Your task to perform on an android device: uninstall "Google Sheets" Image 0: 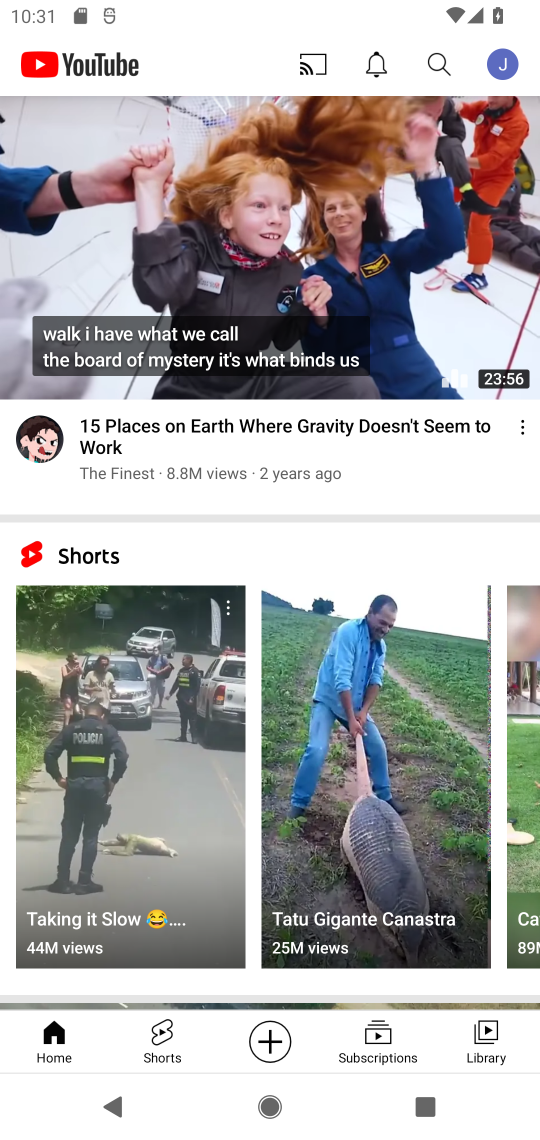
Step 0: press home button
Your task to perform on an android device: uninstall "Google Sheets" Image 1: 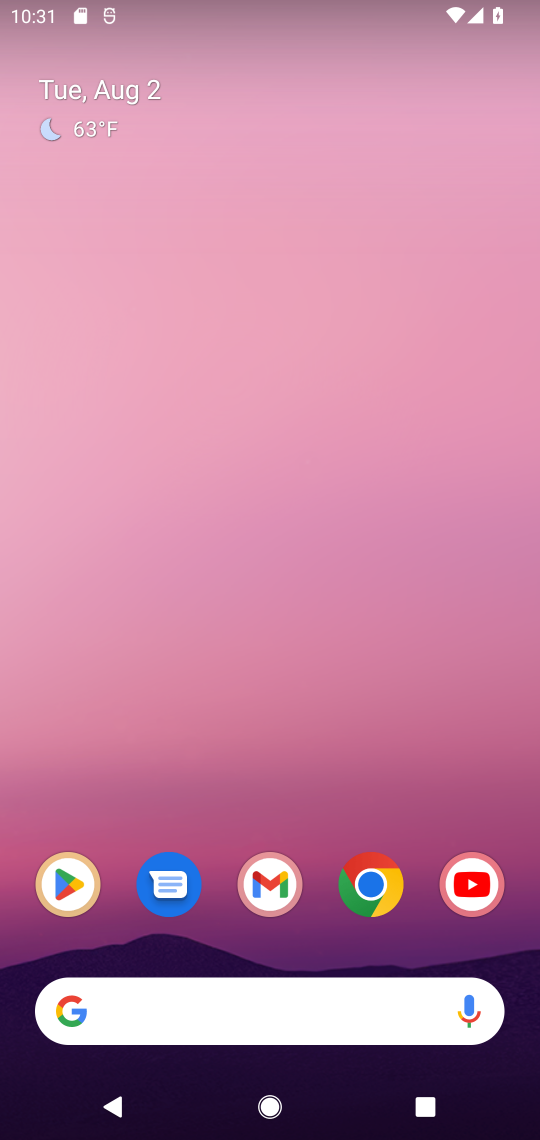
Step 1: click (56, 885)
Your task to perform on an android device: uninstall "Google Sheets" Image 2: 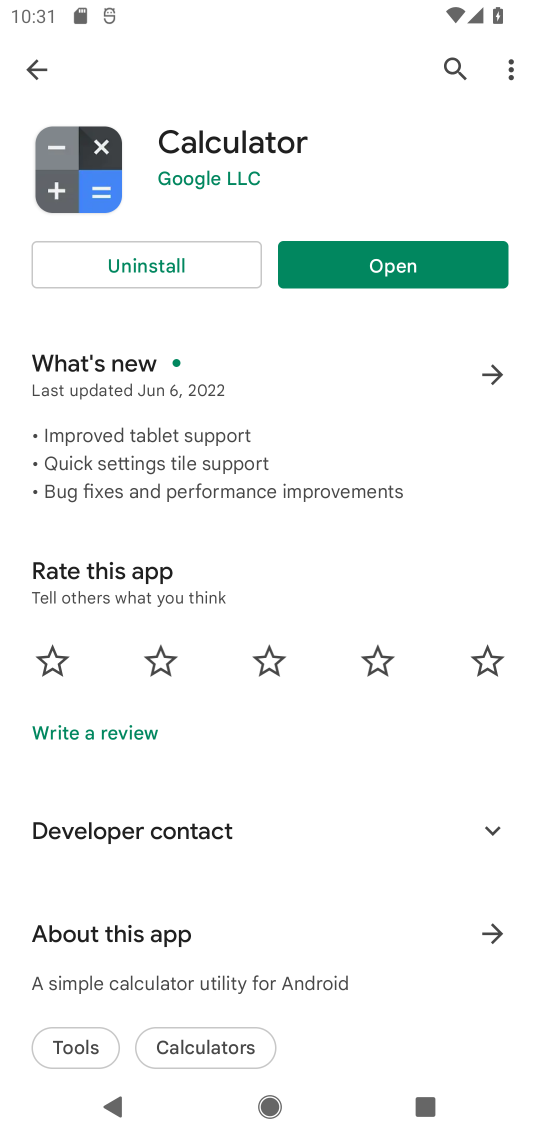
Step 2: click (29, 58)
Your task to perform on an android device: uninstall "Google Sheets" Image 3: 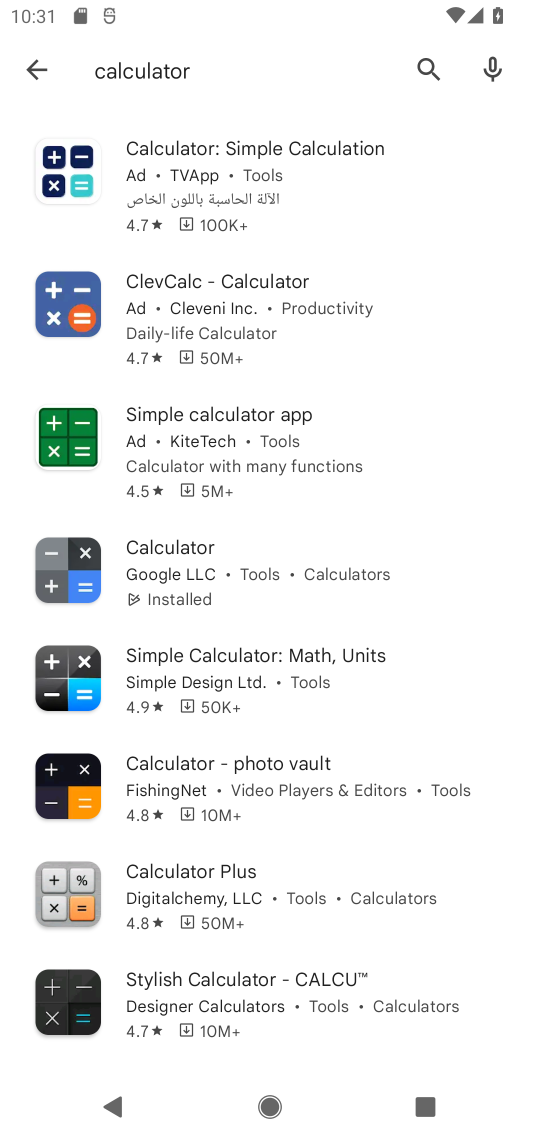
Step 3: click (205, 80)
Your task to perform on an android device: uninstall "Google Sheets" Image 4: 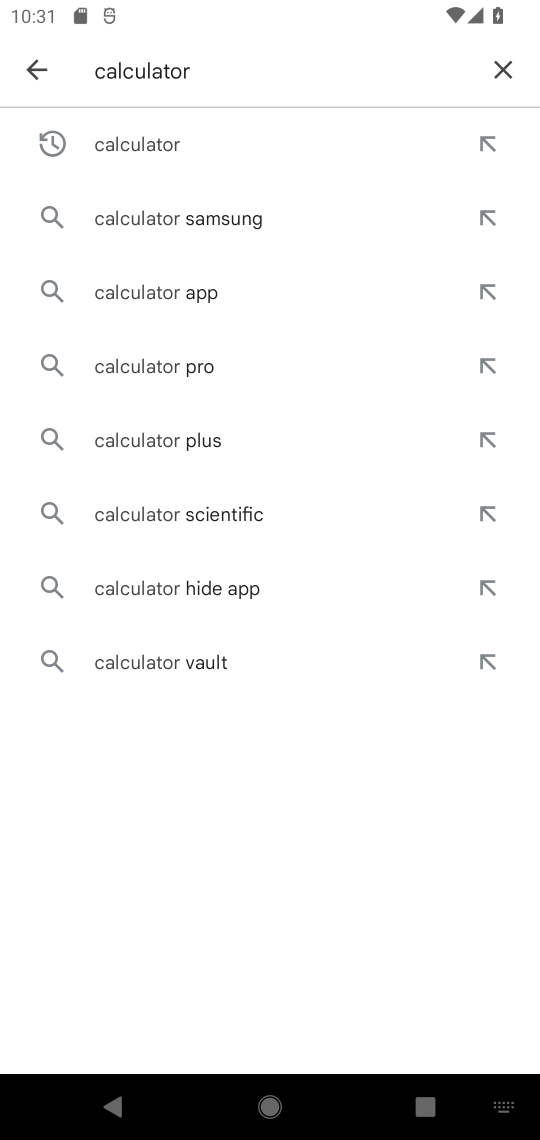
Step 4: click (495, 66)
Your task to perform on an android device: uninstall "Google Sheets" Image 5: 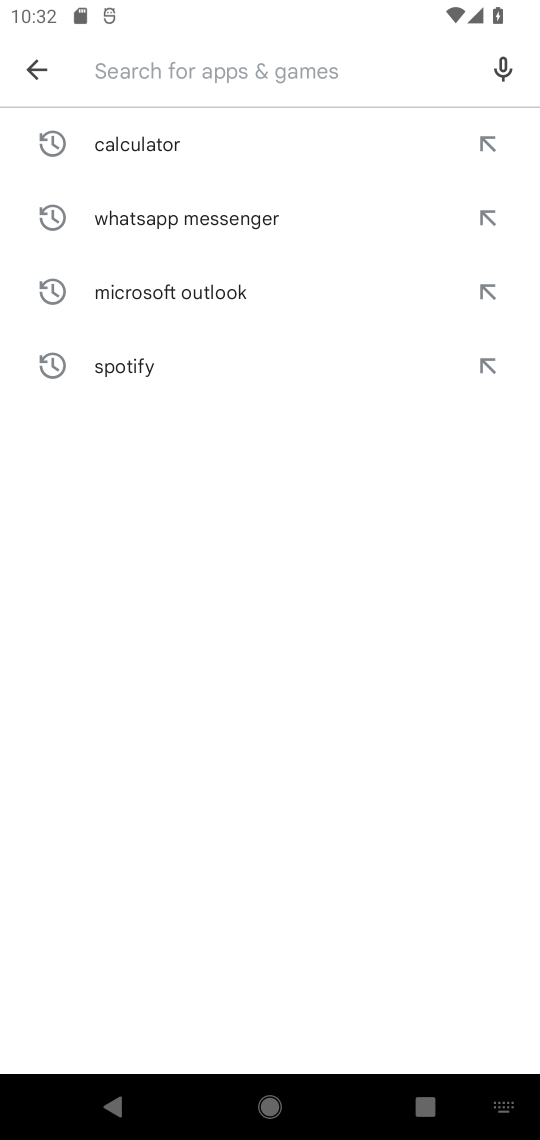
Step 5: type "google sheets"
Your task to perform on an android device: uninstall "Google Sheets" Image 6: 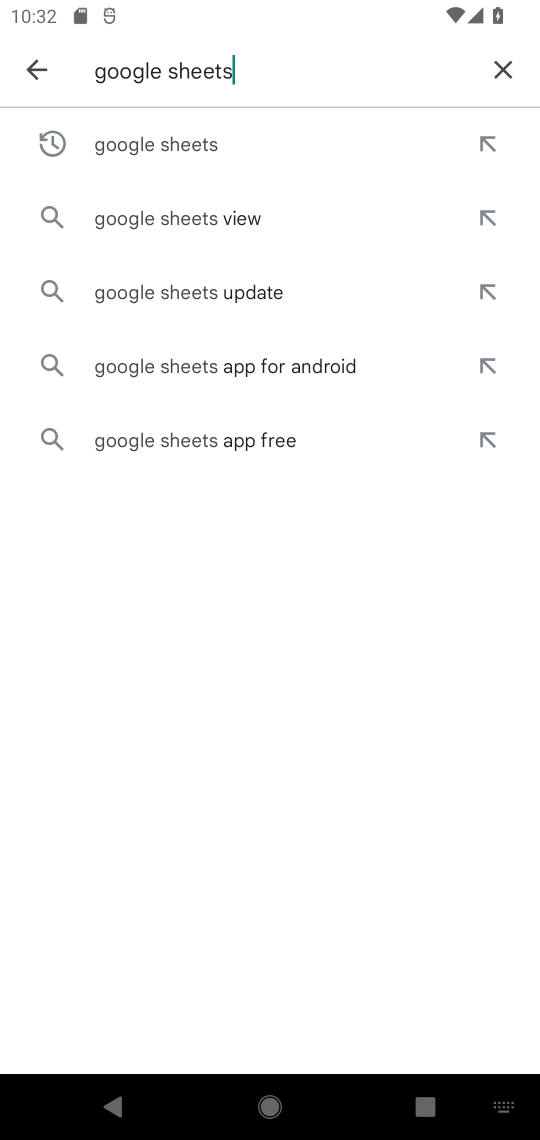
Step 6: click (179, 137)
Your task to perform on an android device: uninstall "Google Sheets" Image 7: 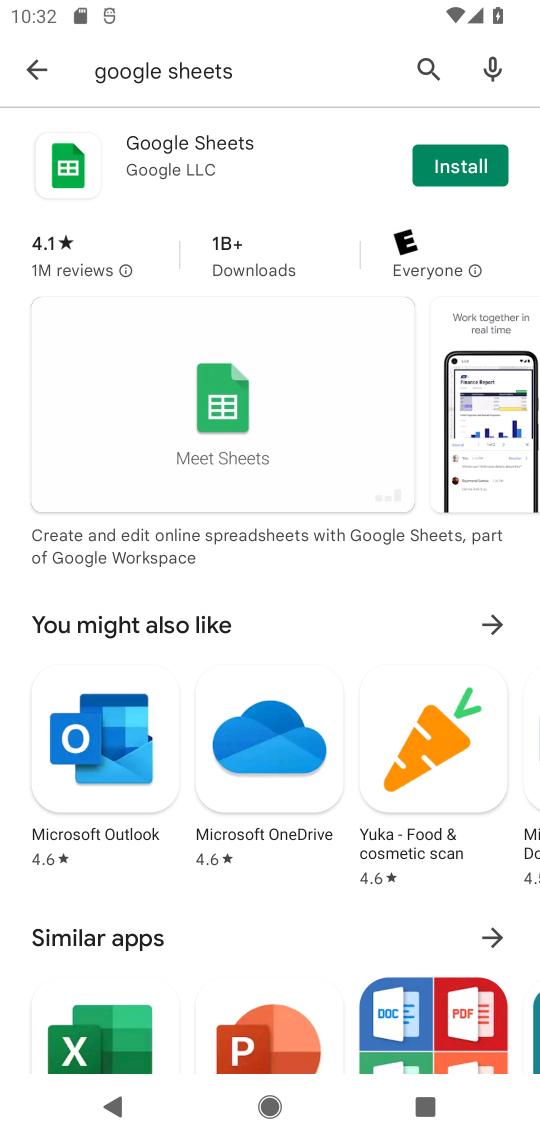
Step 7: task complete